Your task to perform on an android device: Set the phone to "Do not disturb". Image 0: 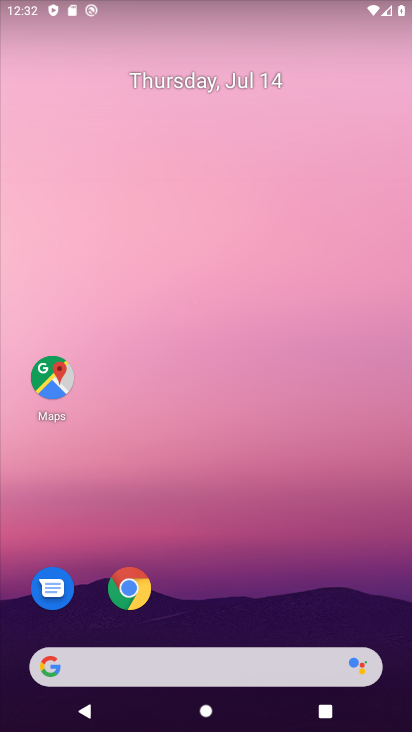
Step 0: drag from (162, 661) to (333, 93)
Your task to perform on an android device: Set the phone to "Do not disturb". Image 1: 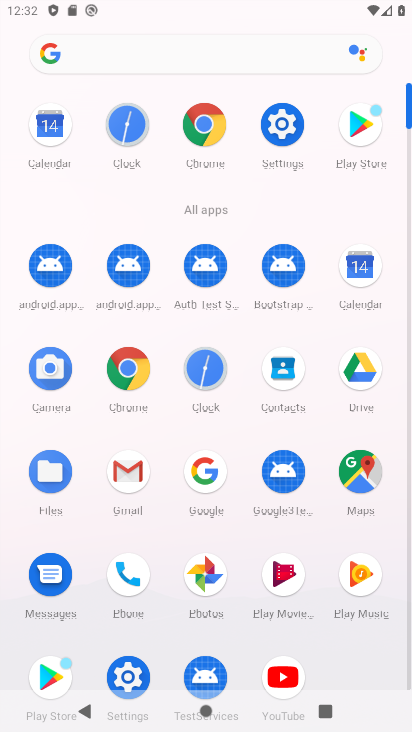
Step 1: click (132, 667)
Your task to perform on an android device: Set the phone to "Do not disturb". Image 2: 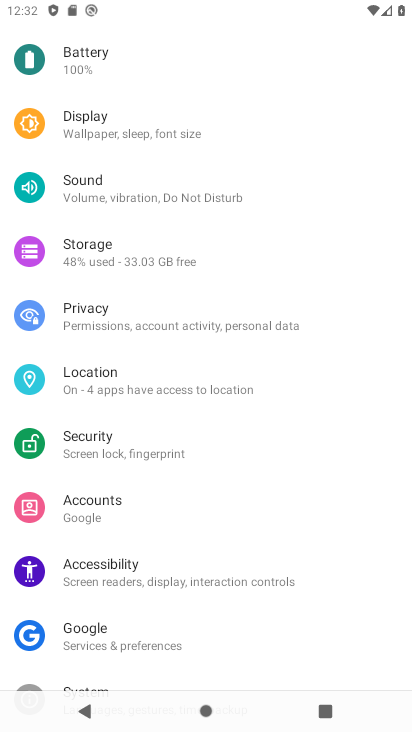
Step 2: click (138, 191)
Your task to perform on an android device: Set the phone to "Do not disturb". Image 3: 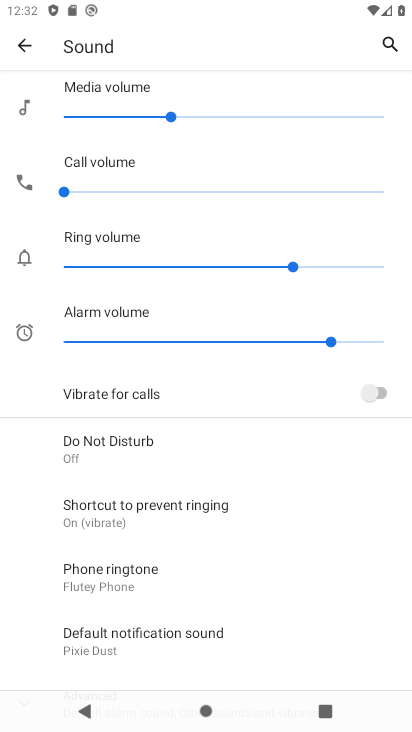
Step 3: click (115, 441)
Your task to perform on an android device: Set the phone to "Do not disturb". Image 4: 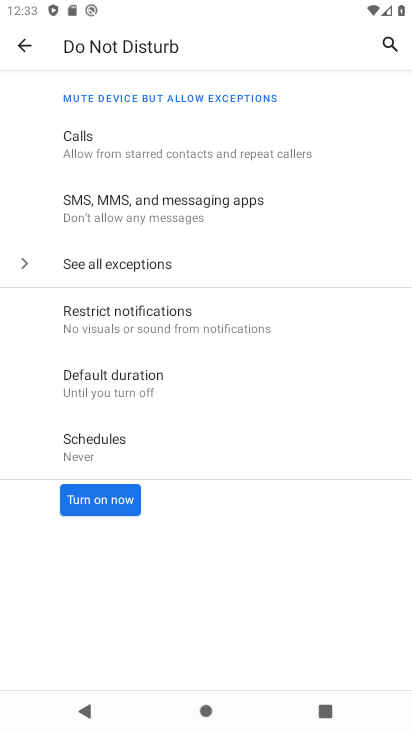
Step 4: click (115, 500)
Your task to perform on an android device: Set the phone to "Do not disturb". Image 5: 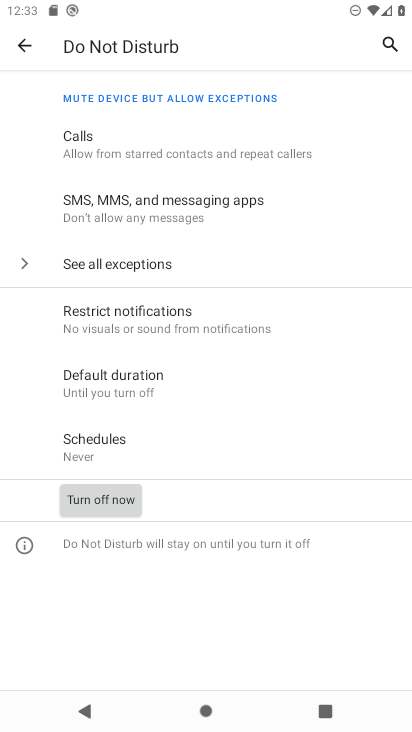
Step 5: task complete